Your task to perform on an android device: Open Android settings Image 0: 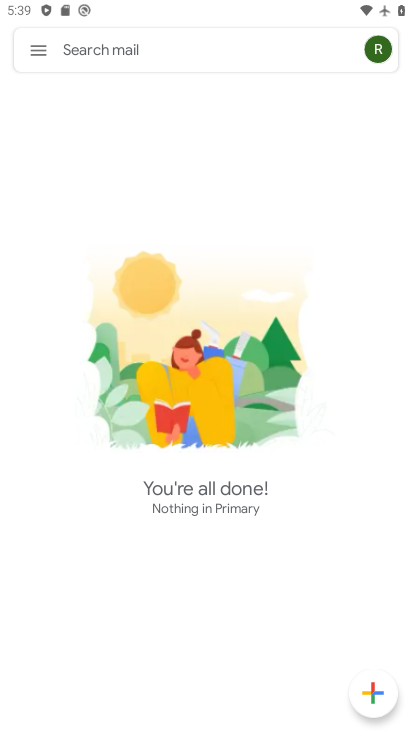
Step 0: press home button
Your task to perform on an android device: Open Android settings Image 1: 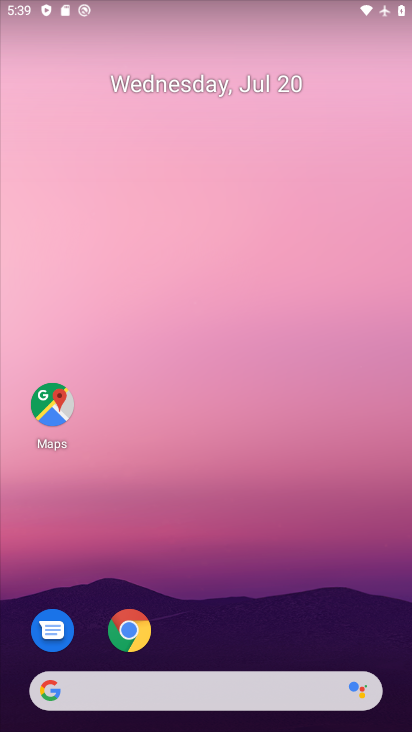
Step 1: drag from (312, 694) to (289, 9)
Your task to perform on an android device: Open Android settings Image 2: 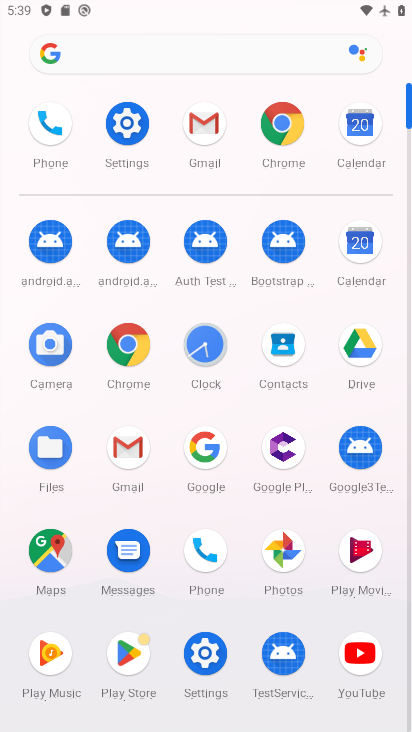
Step 2: click (129, 124)
Your task to perform on an android device: Open Android settings Image 3: 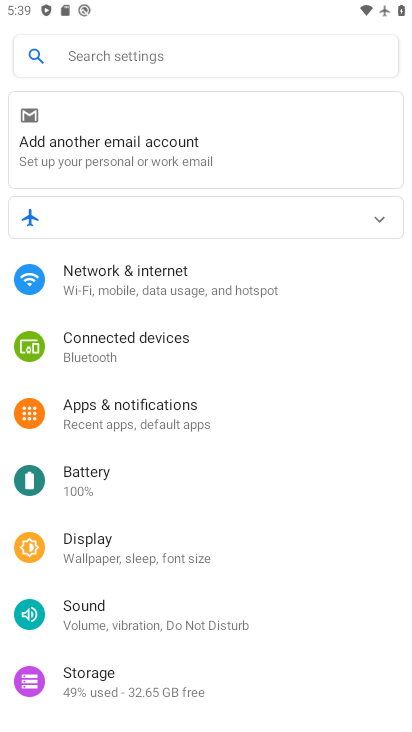
Step 3: drag from (140, 704) to (172, 122)
Your task to perform on an android device: Open Android settings Image 4: 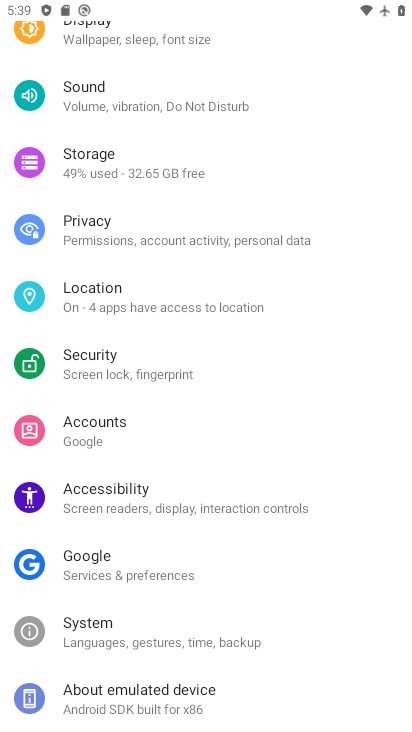
Step 4: click (170, 687)
Your task to perform on an android device: Open Android settings Image 5: 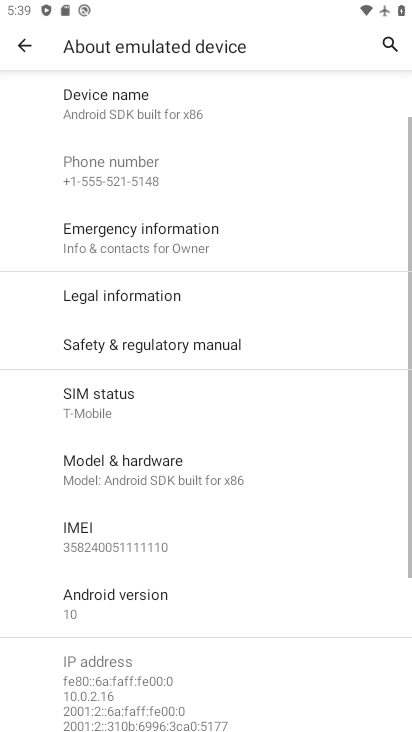
Step 5: click (158, 616)
Your task to perform on an android device: Open Android settings Image 6: 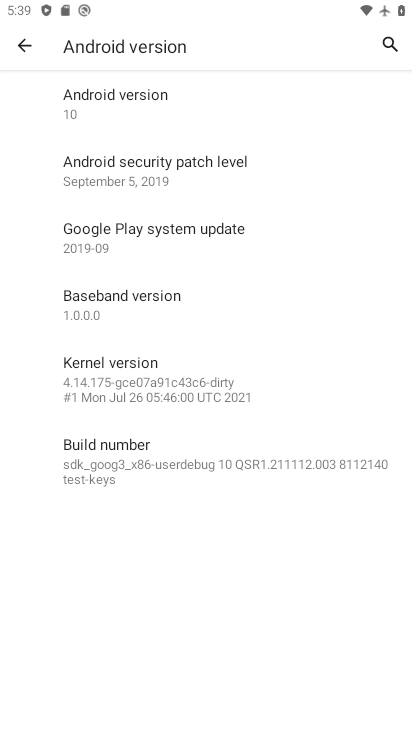
Step 6: task complete